Your task to perform on an android device: Open Google Image 0: 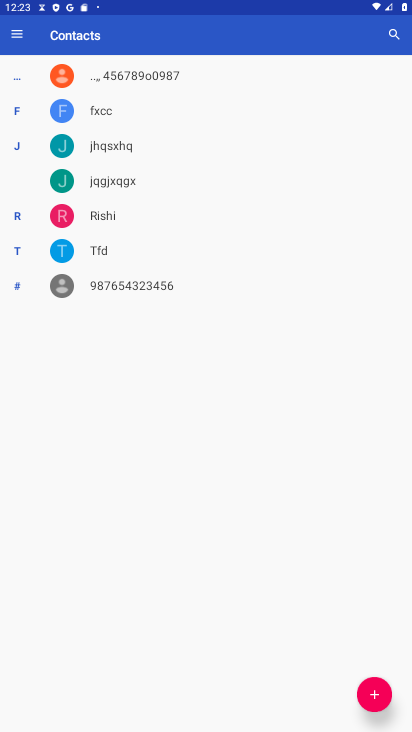
Step 0: press home button
Your task to perform on an android device: Open Google Image 1: 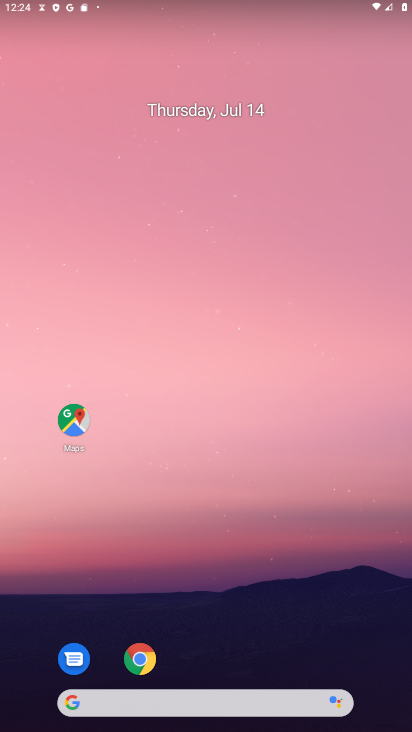
Step 1: click (109, 695)
Your task to perform on an android device: Open Google Image 2: 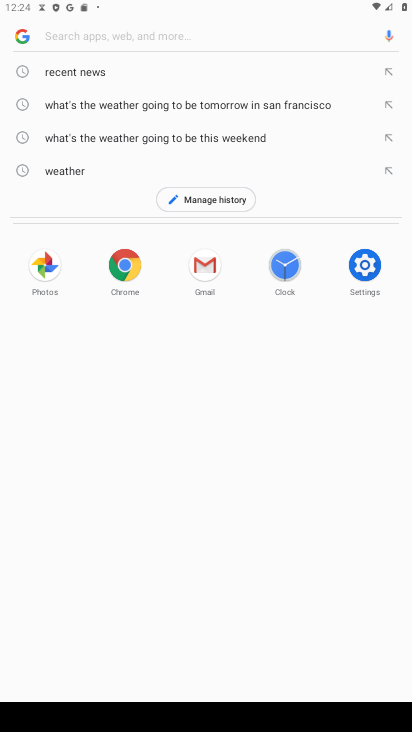
Step 2: task complete